Your task to perform on an android device: create a new album in the google photos Image 0: 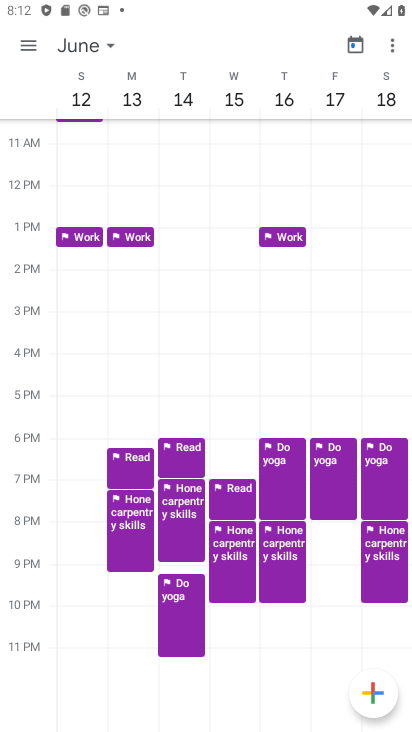
Step 0: press home button
Your task to perform on an android device: create a new album in the google photos Image 1: 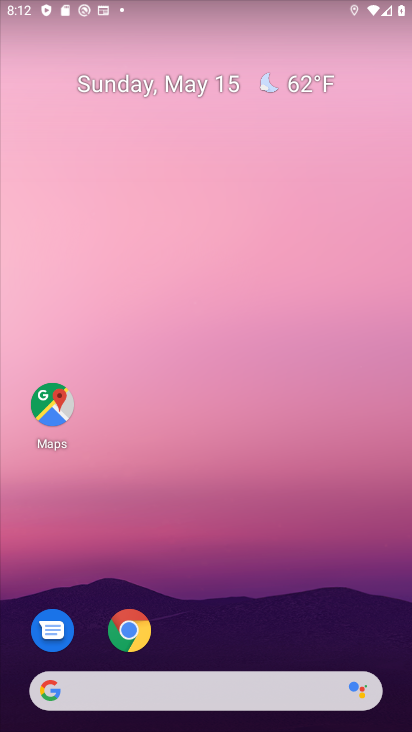
Step 1: drag from (192, 513) to (280, 96)
Your task to perform on an android device: create a new album in the google photos Image 2: 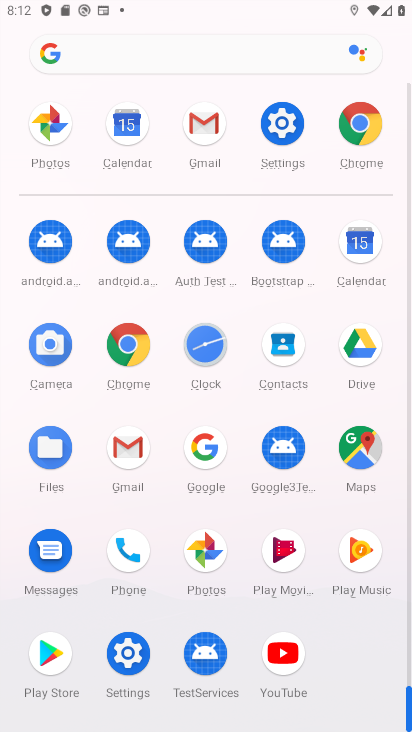
Step 2: click (214, 563)
Your task to perform on an android device: create a new album in the google photos Image 3: 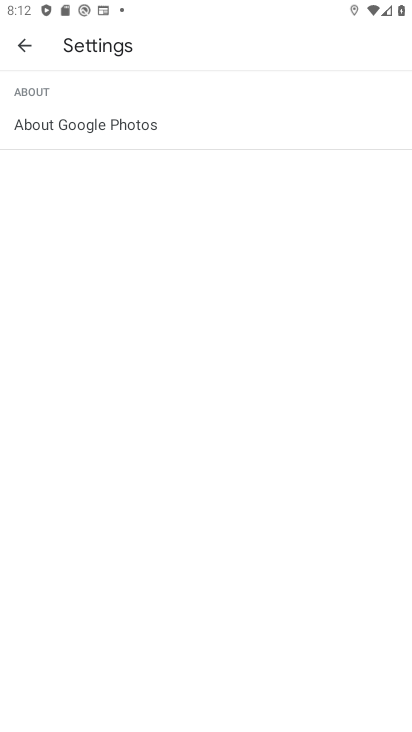
Step 3: click (23, 42)
Your task to perform on an android device: create a new album in the google photos Image 4: 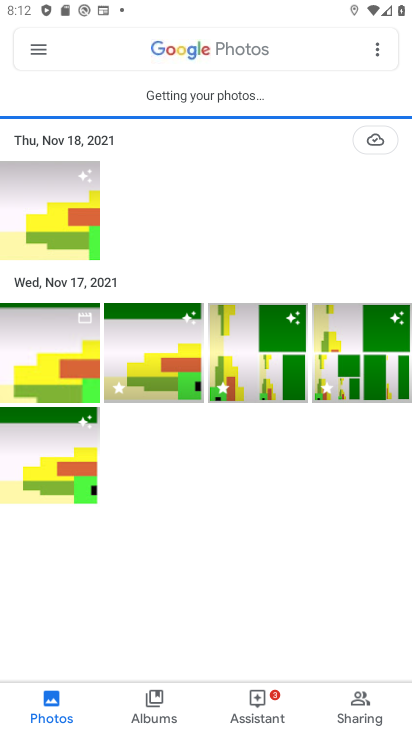
Step 4: click (160, 702)
Your task to perform on an android device: create a new album in the google photos Image 5: 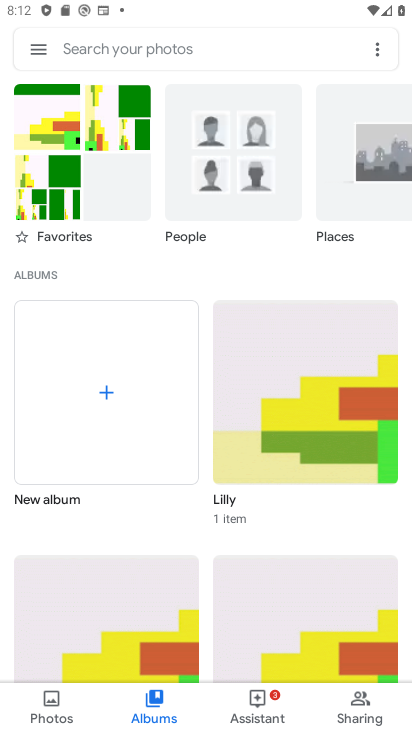
Step 5: click (101, 379)
Your task to perform on an android device: create a new album in the google photos Image 6: 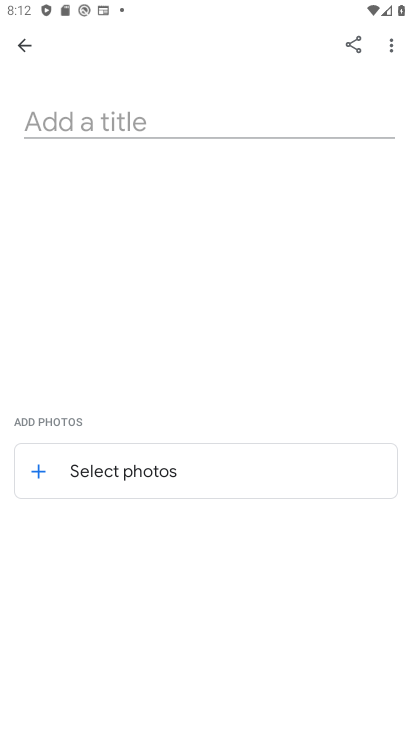
Step 6: click (220, 133)
Your task to perform on an android device: create a new album in the google photos Image 7: 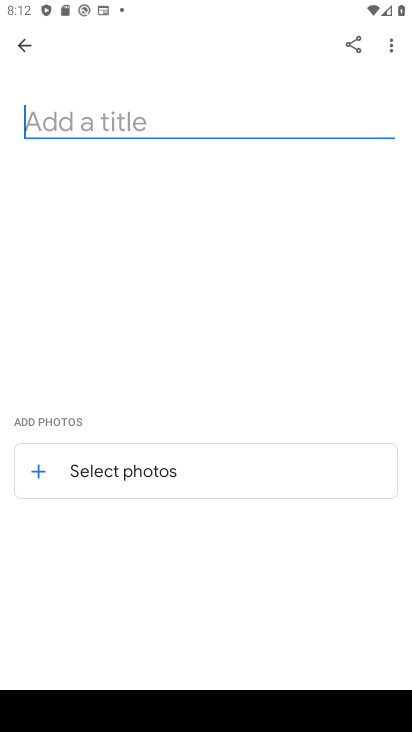
Step 7: type "fledd"
Your task to perform on an android device: create a new album in the google photos Image 8: 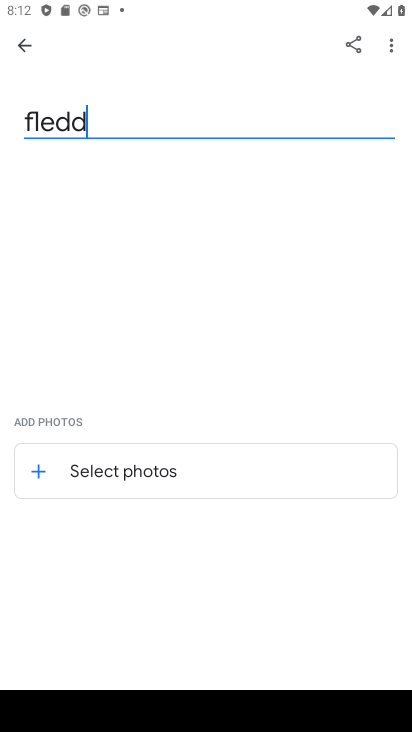
Step 8: click (38, 461)
Your task to perform on an android device: create a new album in the google photos Image 9: 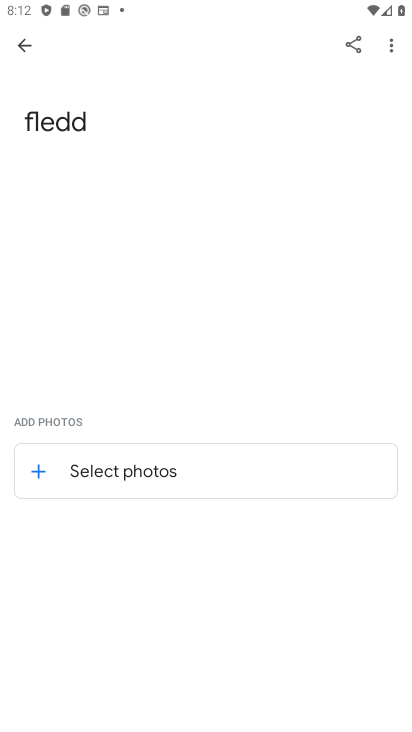
Step 9: click (34, 462)
Your task to perform on an android device: create a new album in the google photos Image 10: 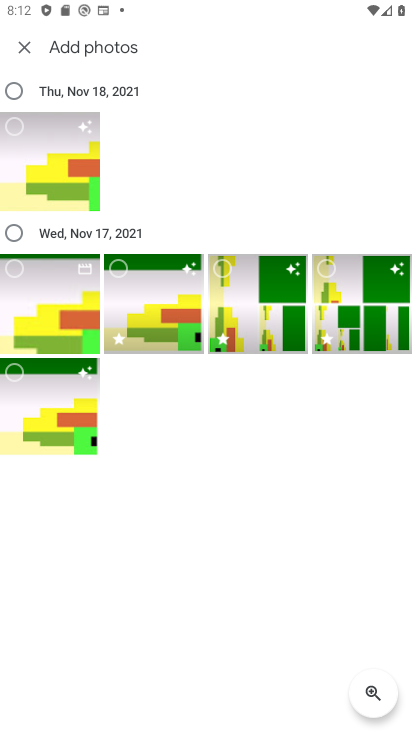
Step 10: click (41, 282)
Your task to perform on an android device: create a new album in the google photos Image 11: 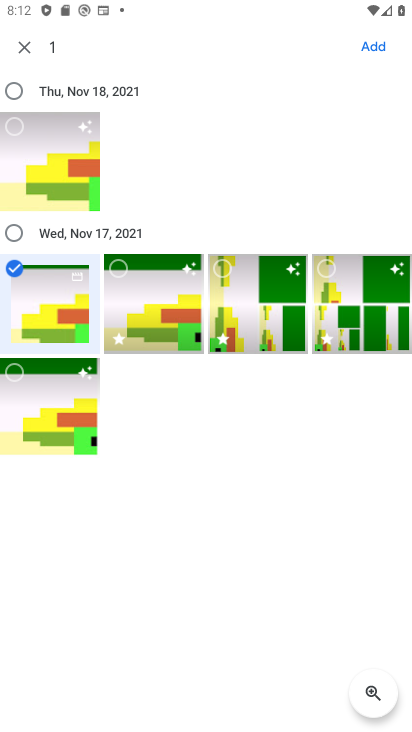
Step 11: click (141, 306)
Your task to perform on an android device: create a new album in the google photos Image 12: 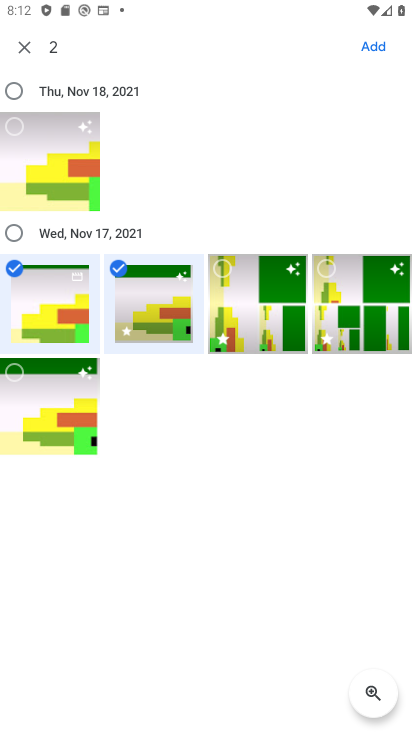
Step 12: click (241, 293)
Your task to perform on an android device: create a new album in the google photos Image 13: 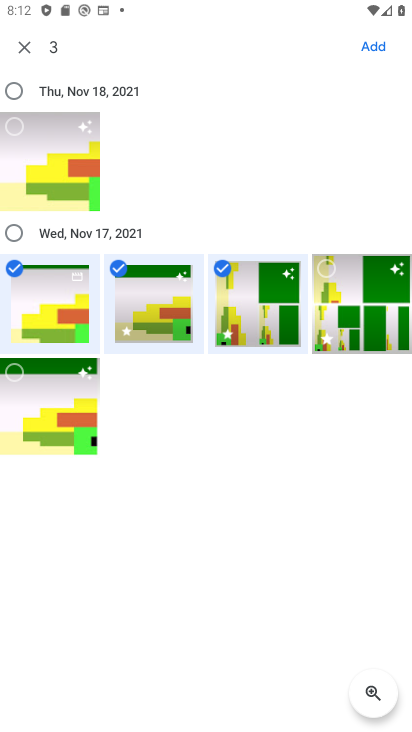
Step 13: click (349, 299)
Your task to perform on an android device: create a new album in the google photos Image 14: 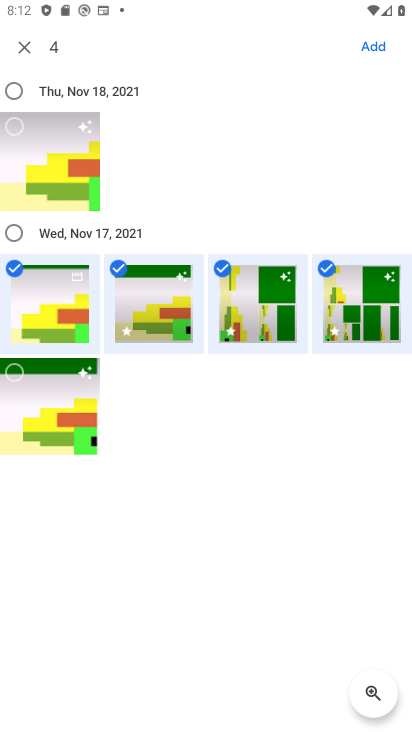
Step 14: click (372, 47)
Your task to perform on an android device: create a new album in the google photos Image 15: 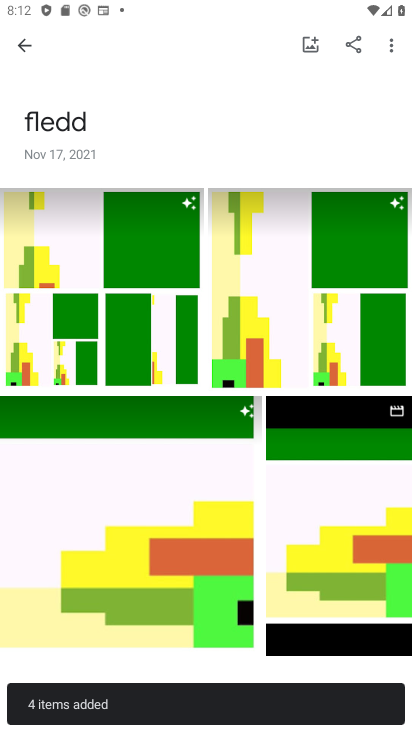
Step 15: task complete